Your task to perform on an android device: Open accessibility settings Image 0: 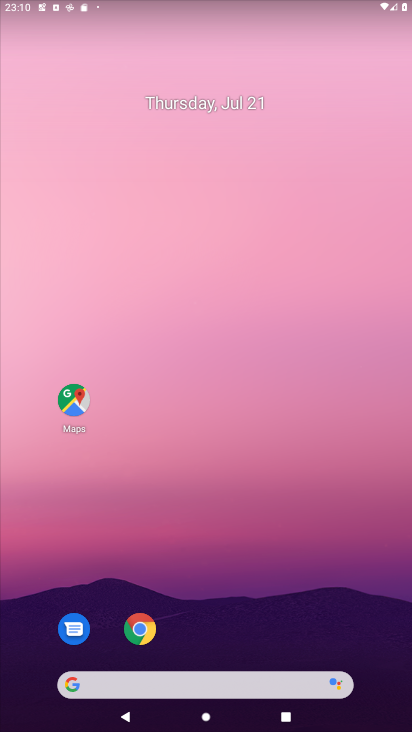
Step 0: drag from (221, 604) to (262, 138)
Your task to perform on an android device: Open accessibility settings Image 1: 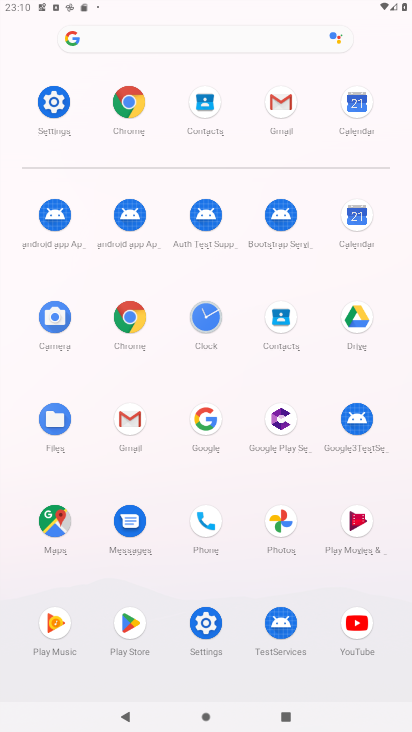
Step 1: click (208, 636)
Your task to perform on an android device: Open accessibility settings Image 2: 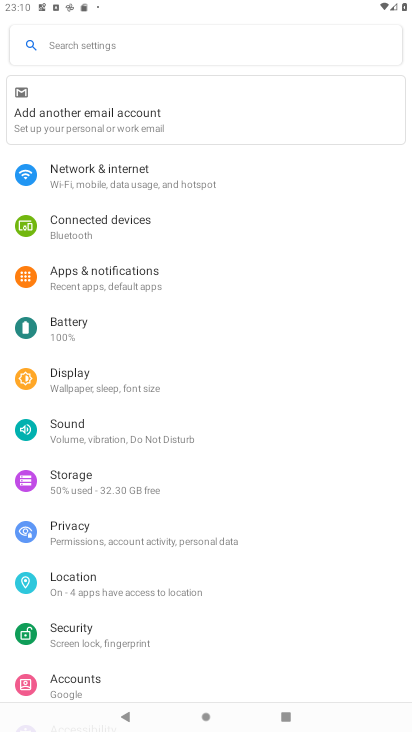
Step 2: drag from (175, 440) to (159, 200)
Your task to perform on an android device: Open accessibility settings Image 3: 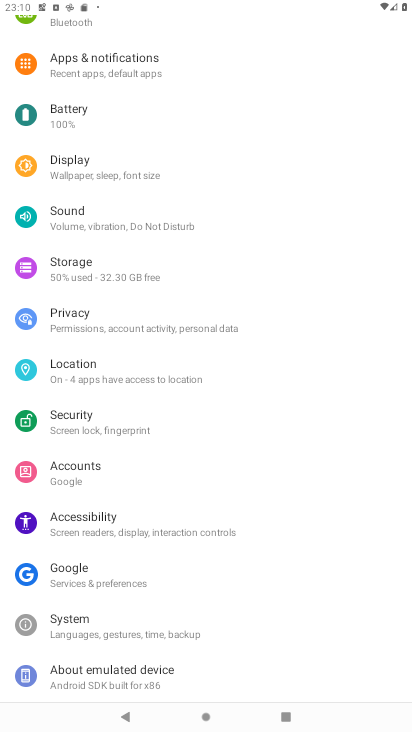
Step 3: drag from (121, 213) to (168, 263)
Your task to perform on an android device: Open accessibility settings Image 4: 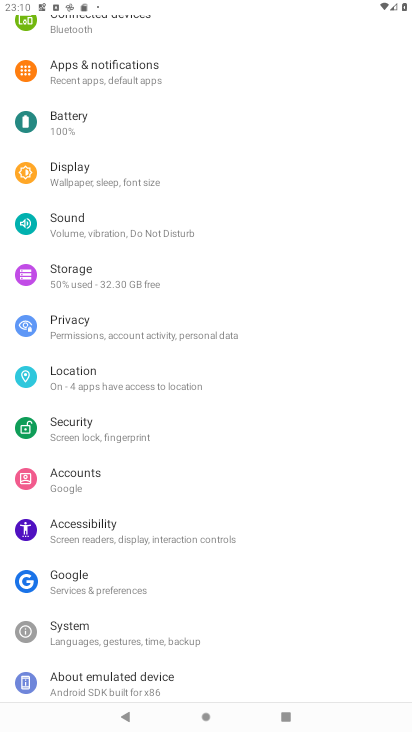
Step 4: click (101, 530)
Your task to perform on an android device: Open accessibility settings Image 5: 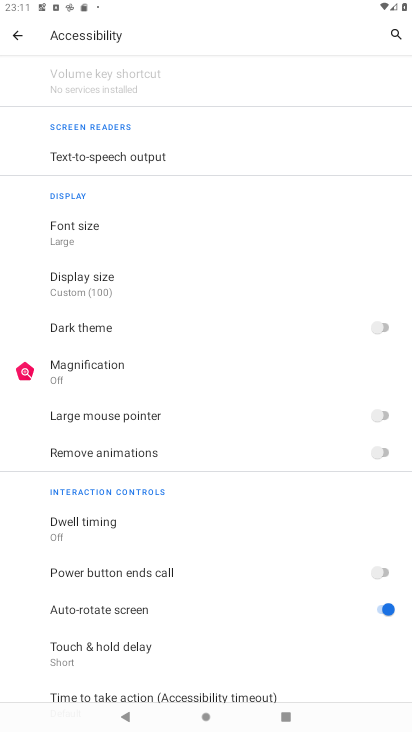
Step 5: task complete